Your task to perform on an android device: install app "Move to iOS" Image 0: 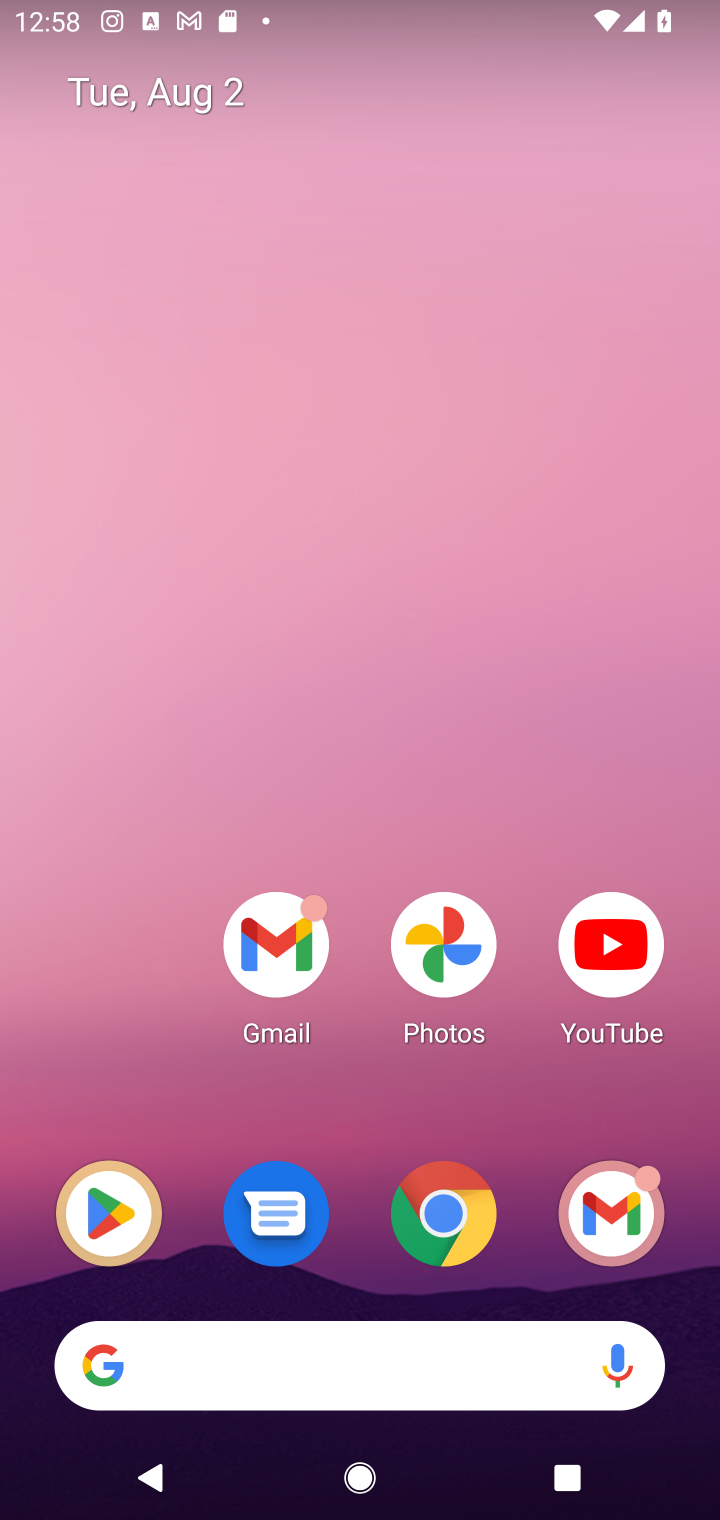
Step 0: click (95, 1238)
Your task to perform on an android device: install app "Move to iOS" Image 1: 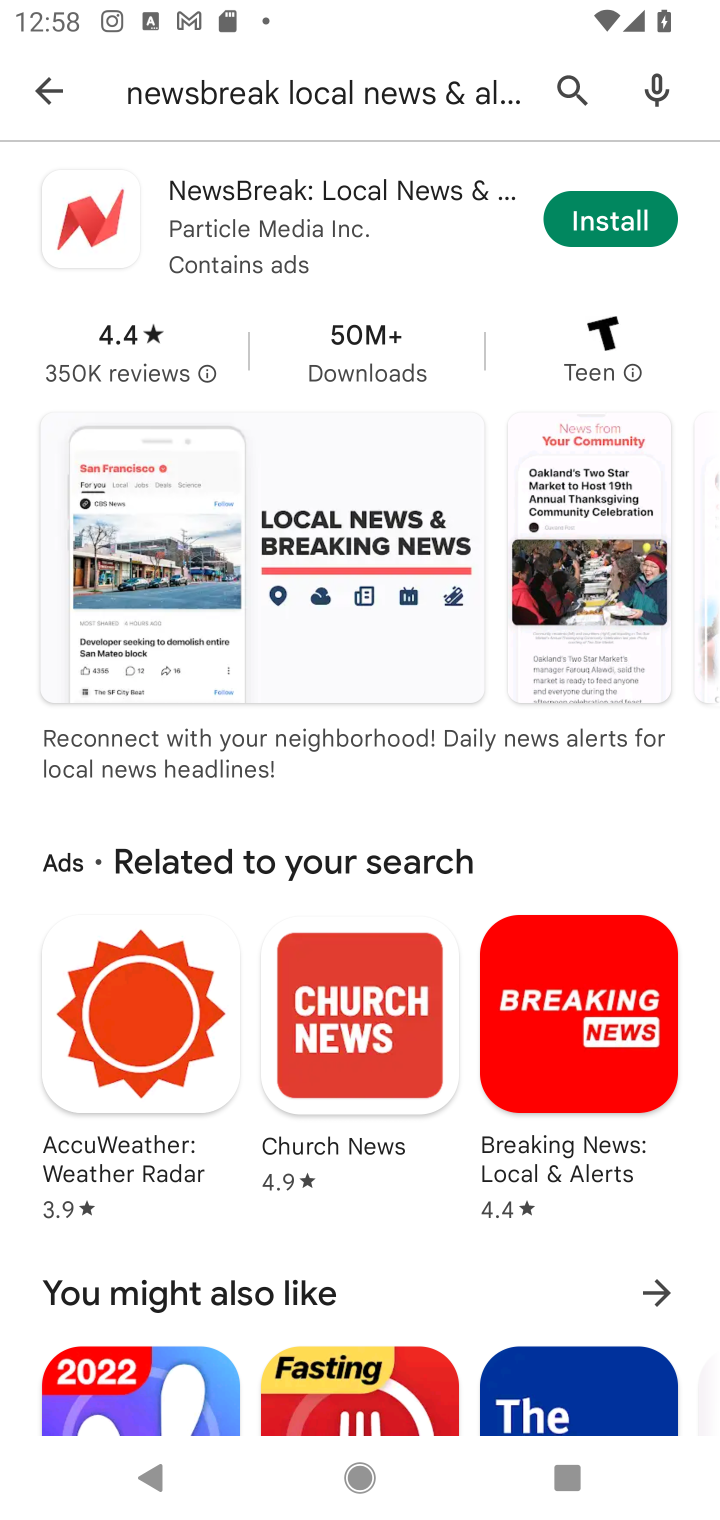
Step 1: click (47, 82)
Your task to perform on an android device: install app "Move to iOS" Image 2: 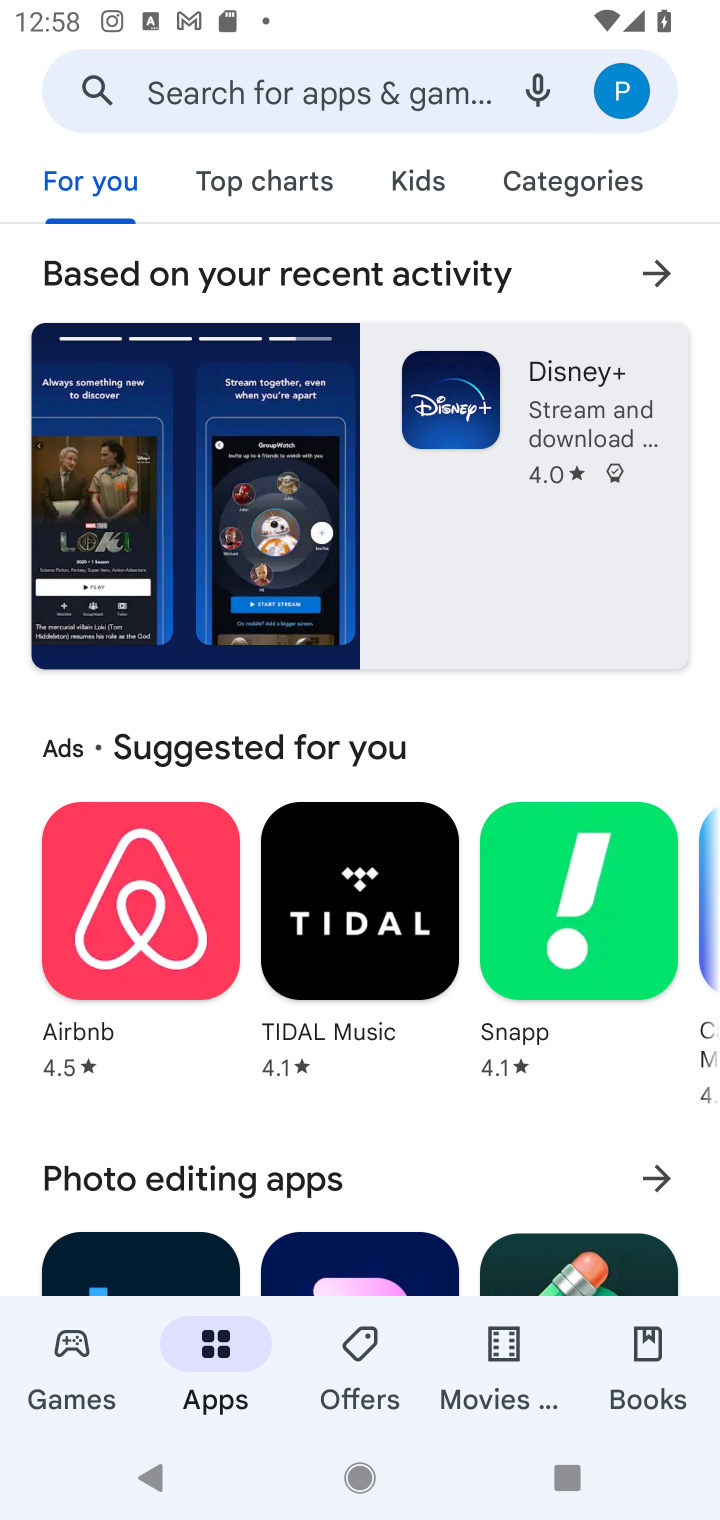
Step 2: click (400, 82)
Your task to perform on an android device: install app "Move to iOS" Image 3: 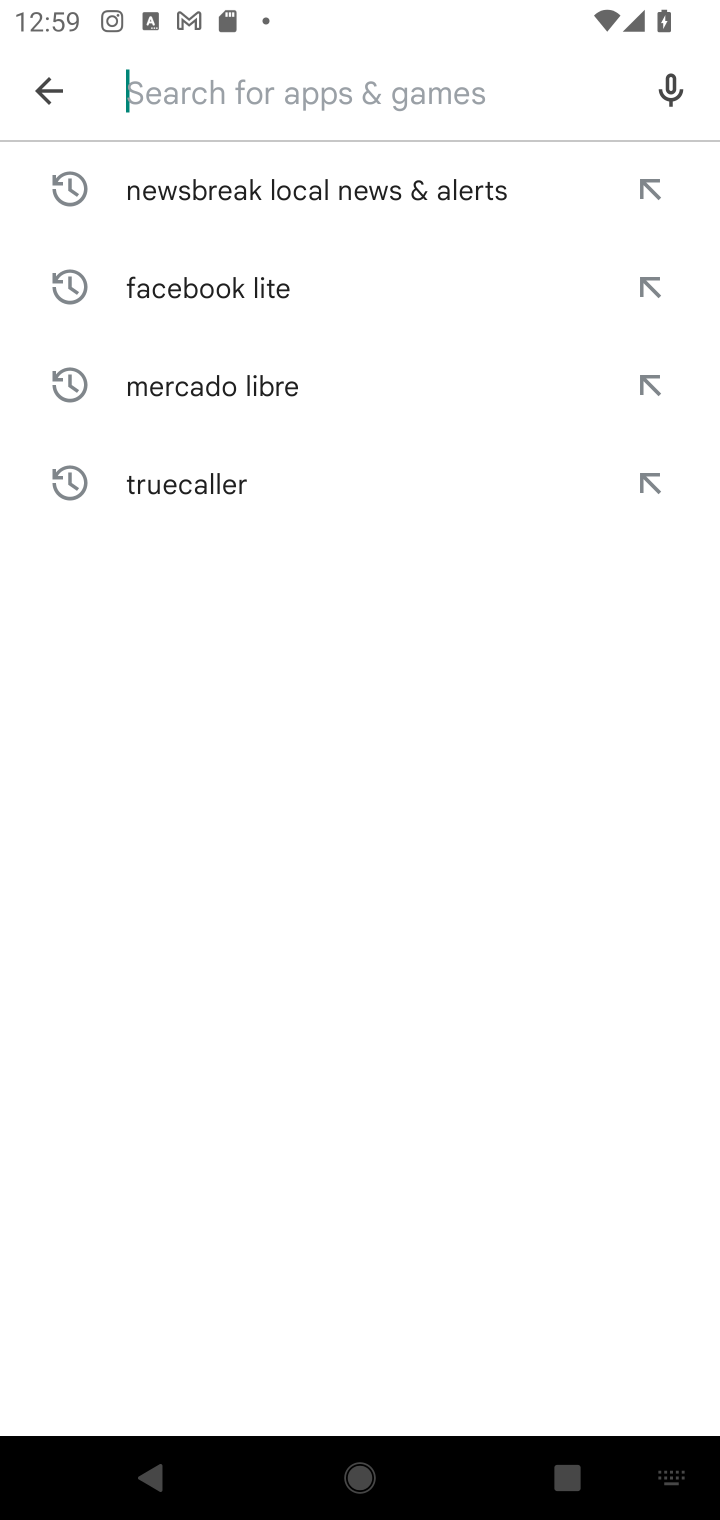
Step 3: type "Move to iOS"
Your task to perform on an android device: install app "Move to iOS" Image 4: 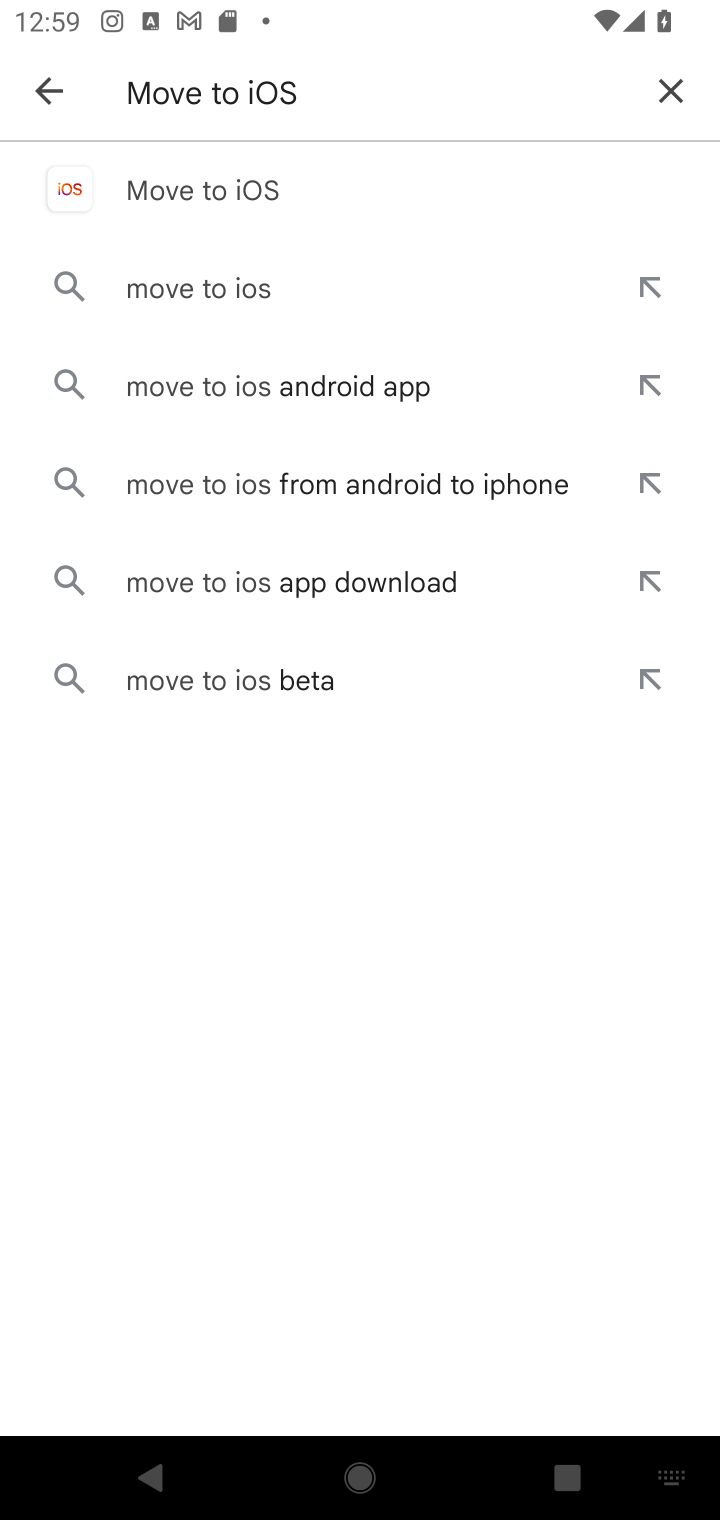
Step 4: click (218, 191)
Your task to perform on an android device: install app "Move to iOS" Image 5: 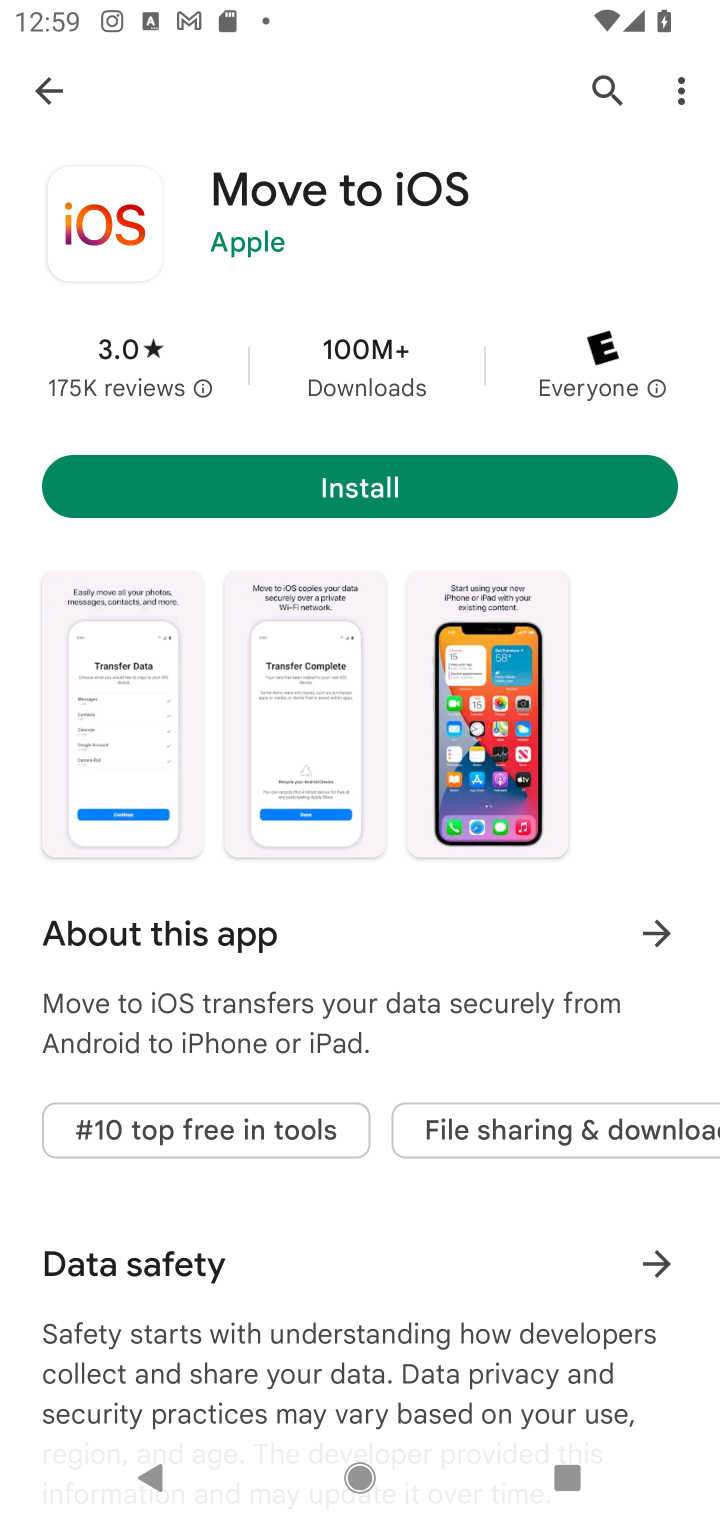
Step 5: click (310, 473)
Your task to perform on an android device: install app "Move to iOS" Image 6: 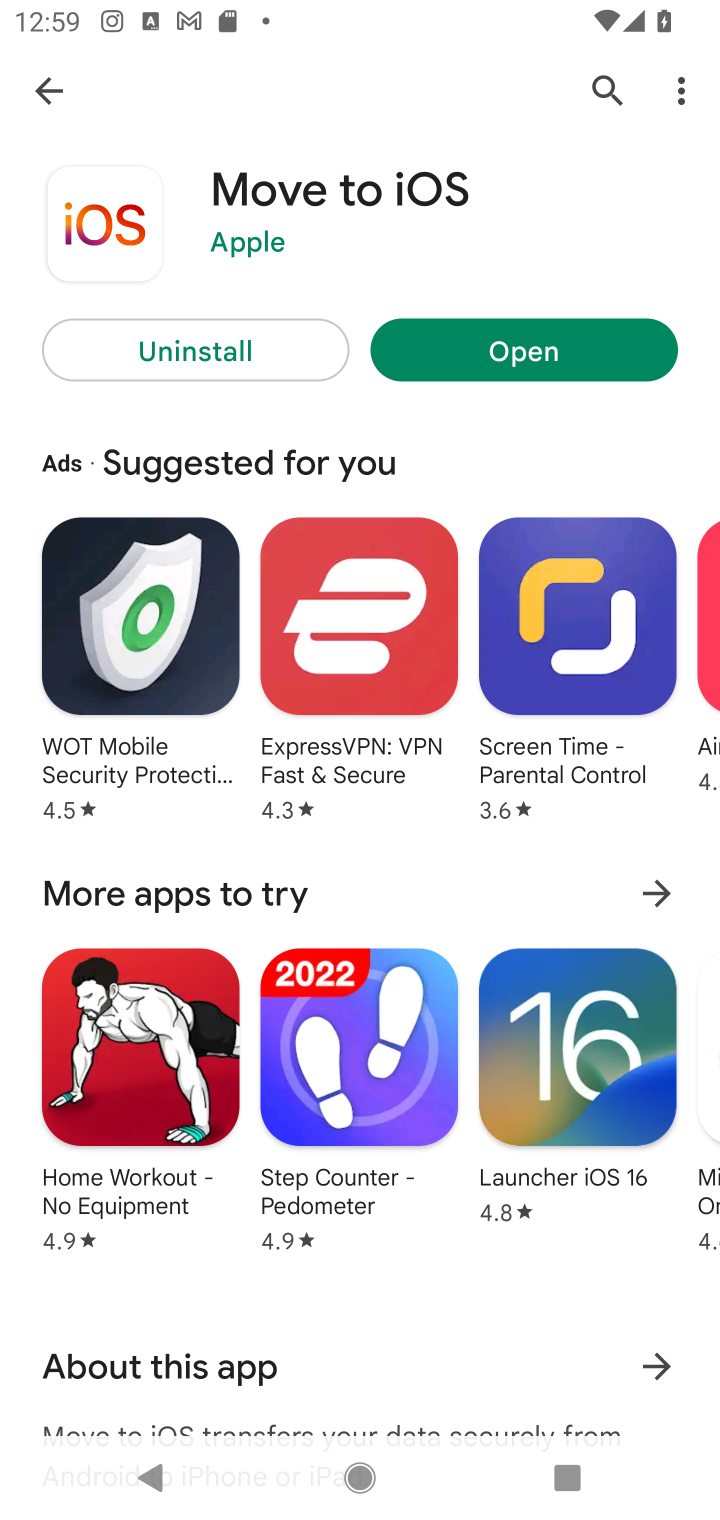
Step 6: task complete